Your task to perform on an android device: Show me popular games on the Play Store Image 0: 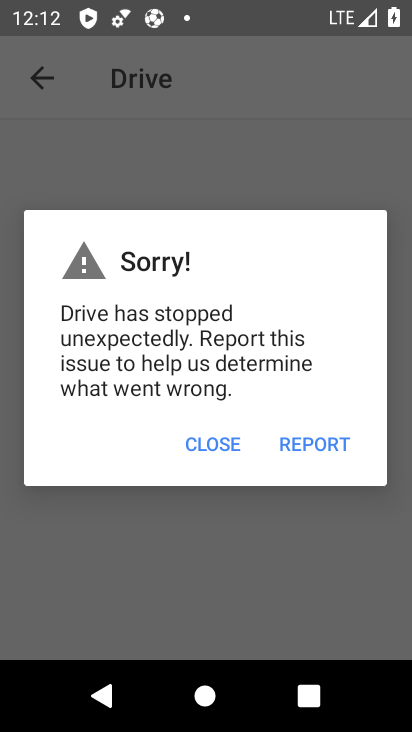
Step 0: press home button
Your task to perform on an android device: Show me popular games on the Play Store Image 1: 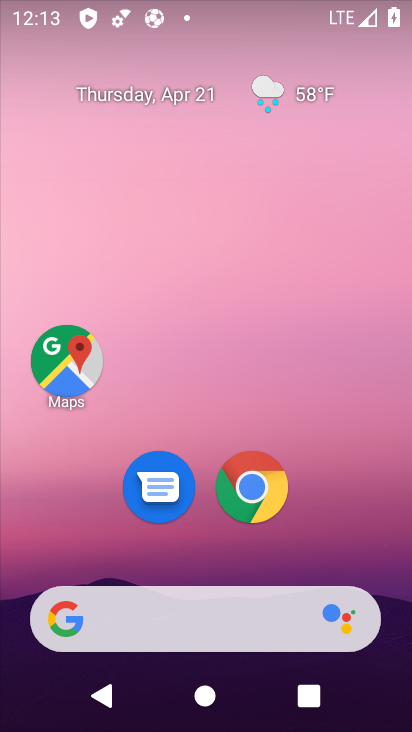
Step 1: drag from (395, 576) to (406, 438)
Your task to perform on an android device: Show me popular games on the Play Store Image 2: 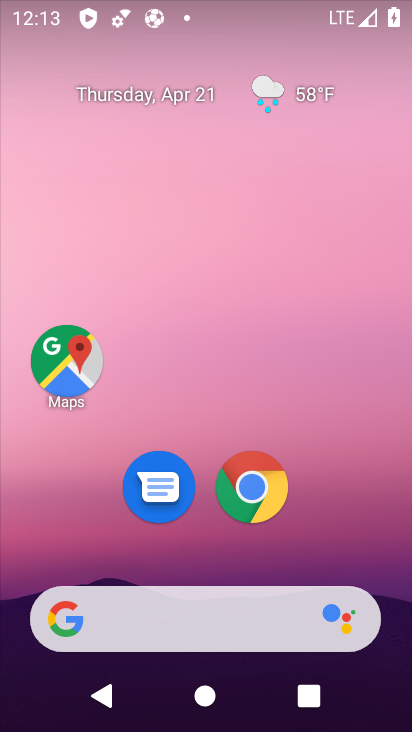
Step 2: drag from (388, 579) to (389, 5)
Your task to perform on an android device: Show me popular games on the Play Store Image 3: 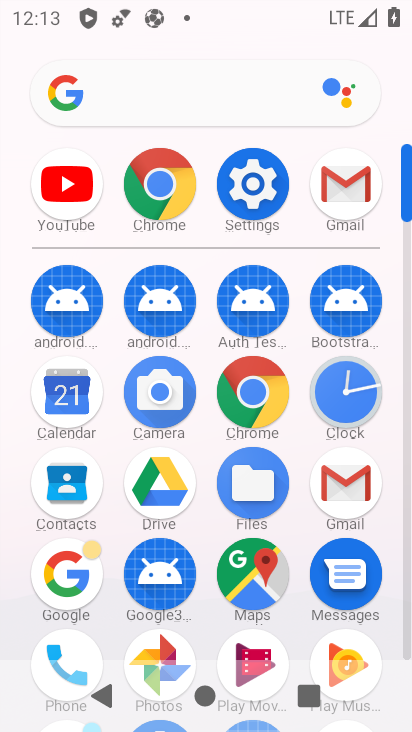
Step 3: drag from (404, 511) to (404, 468)
Your task to perform on an android device: Show me popular games on the Play Store Image 4: 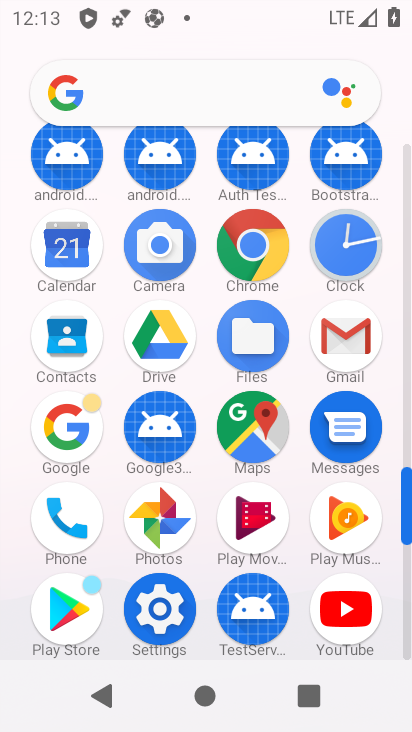
Step 4: click (55, 615)
Your task to perform on an android device: Show me popular games on the Play Store Image 5: 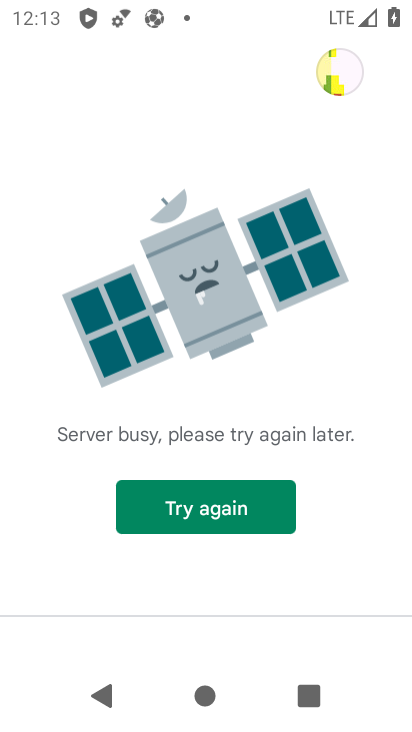
Step 5: click (201, 503)
Your task to perform on an android device: Show me popular games on the Play Store Image 6: 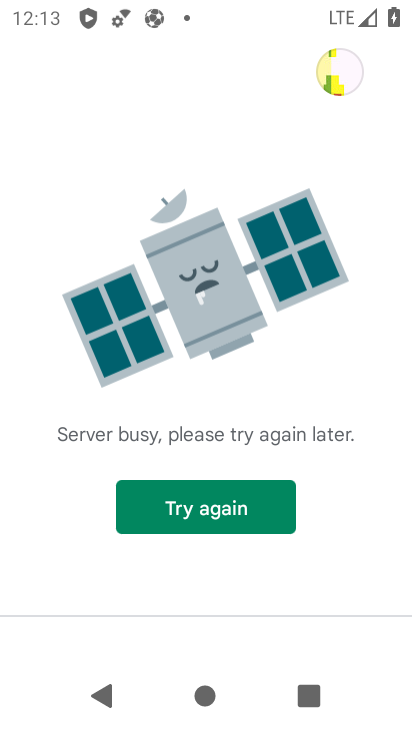
Step 6: task complete